Your task to perform on an android device: remove spam from my inbox in the gmail app Image 0: 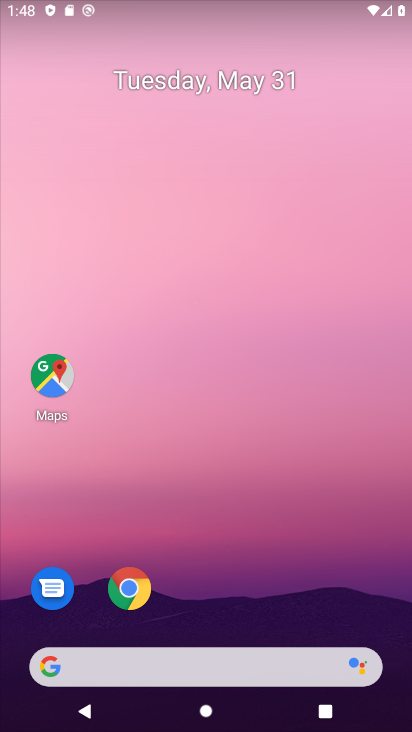
Step 0: drag from (140, 726) to (216, 137)
Your task to perform on an android device: remove spam from my inbox in the gmail app Image 1: 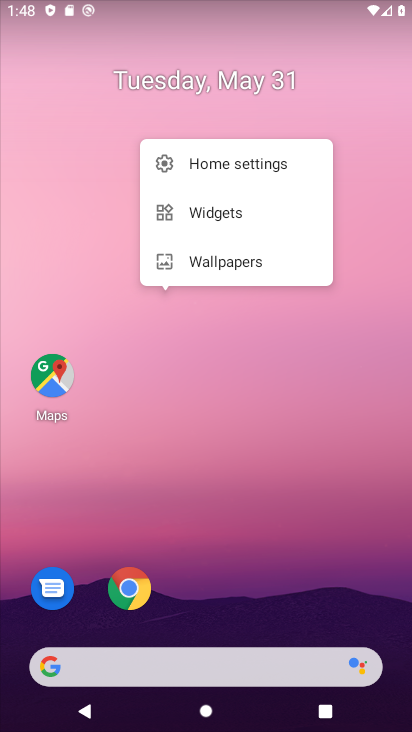
Step 1: press home button
Your task to perform on an android device: remove spam from my inbox in the gmail app Image 2: 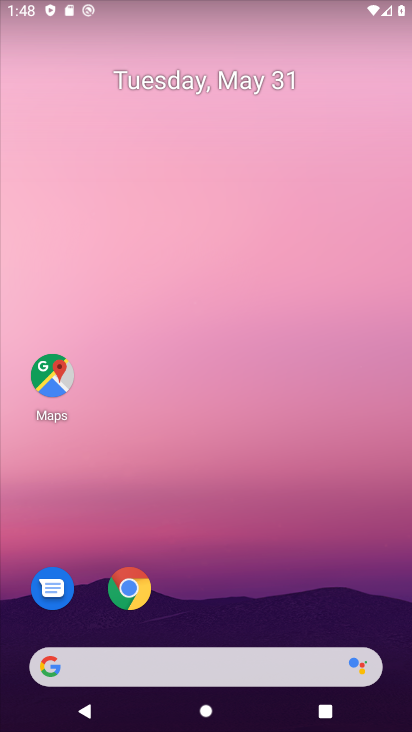
Step 2: drag from (150, 729) to (113, 117)
Your task to perform on an android device: remove spam from my inbox in the gmail app Image 3: 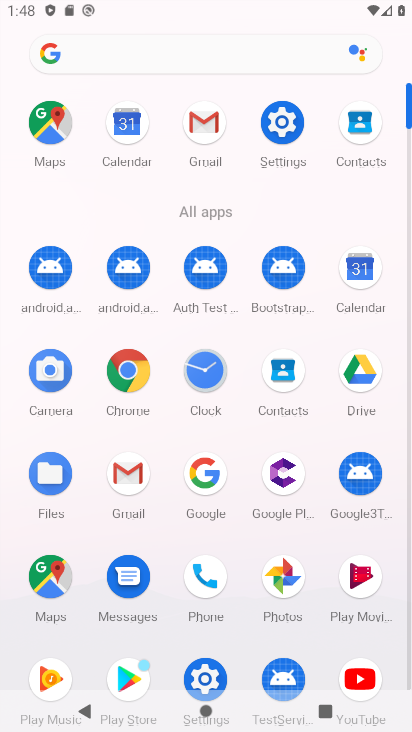
Step 3: click (118, 479)
Your task to perform on an android device: remove spam from my inbox in the gmail app Image 4: 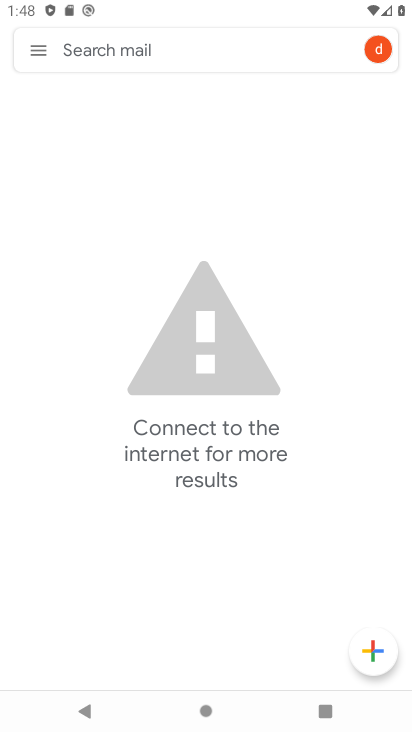
Step 4: click (35, 45)
Your task to perform on an android device: remove spam from my inbox in the gmail app Image 5: 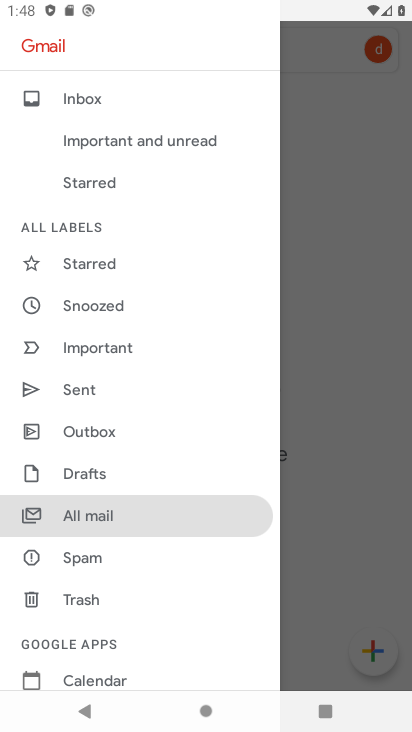
Step 5: click (84, 558)
Your task to perform on an android device: remove spam from my inbox in the gmail app Image 6: 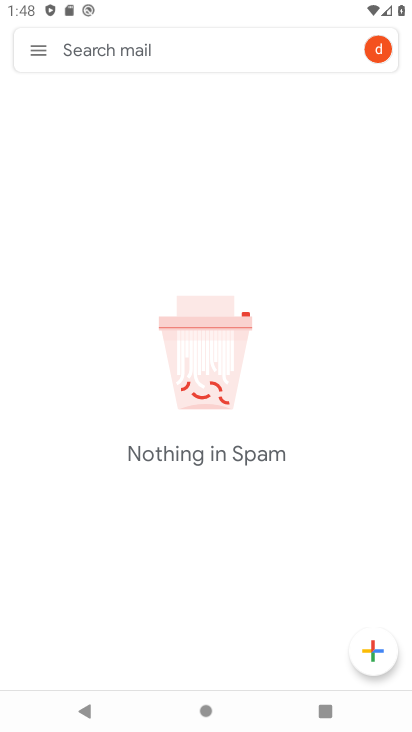
Step 6: task complete